Your task to perform on an android device: toggle translation in the chrome app Image 0: 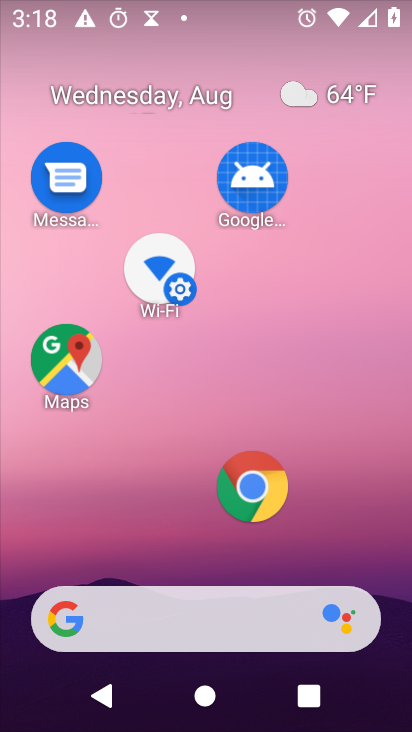
Step 0: press home button
Your task to perform on an android device: toggle translation in the chrome app Image 1: 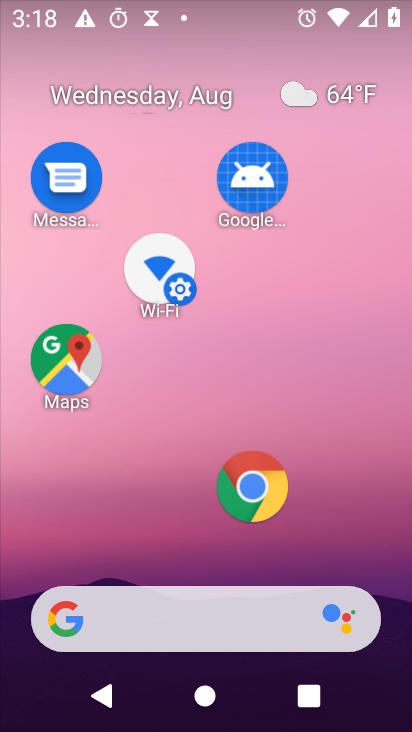
Step 1: click (244, 471)
Your task to perform on an android device: toggle translation in the chrome app Image 2: 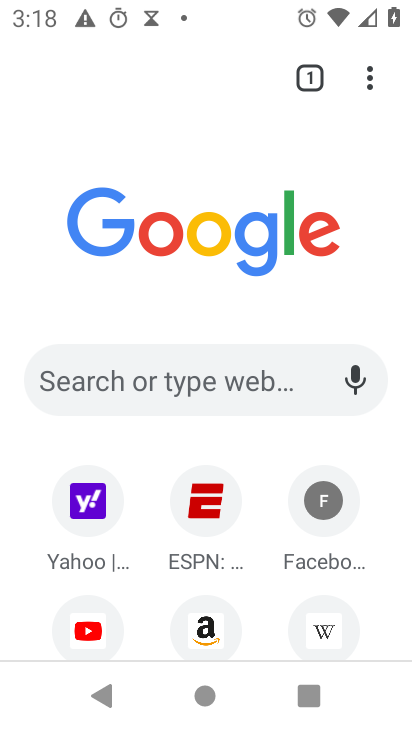
Step 2: click (377, 83)
Your task to perform on an android device: toggle translation in the chrome app Image 3: 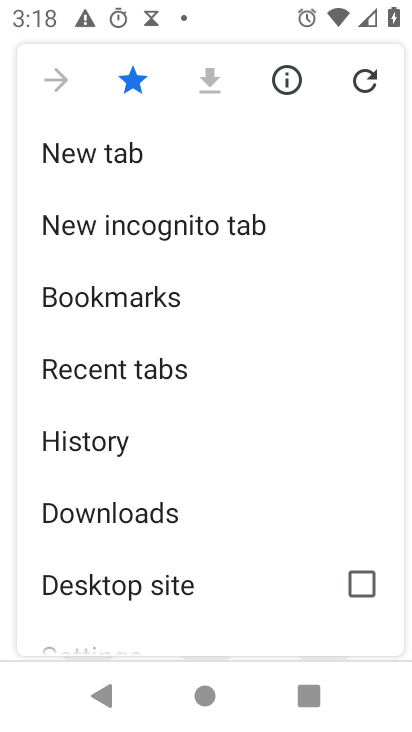
Step 3: drag from (275, 594) to (403, 119)
Your task to perform on an android device: toggle translation in the chrome app Image 4: 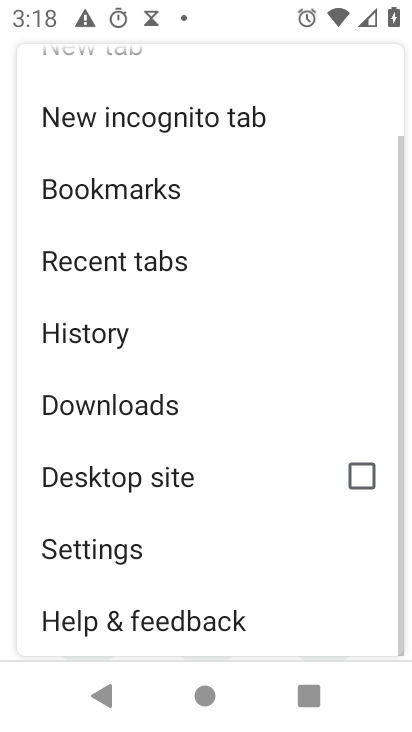
Step 4: click (106, 558)
Your task to perform on an android device: toggle translation in the chrome app Image 5: 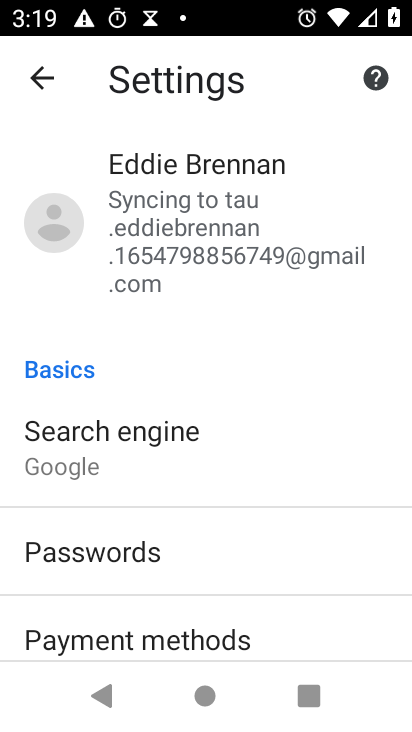
Step 5: drag from (335, 637) to (411, 50)
Your task to perform on an android device: toggle translation in the chrome app Image 6: 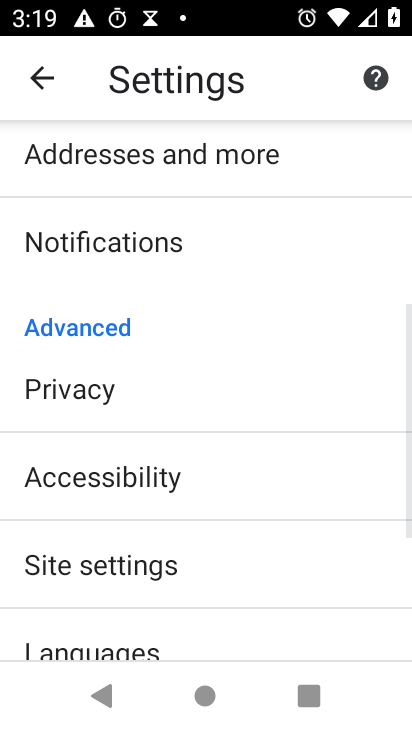
Step 6: drag from (361, 572) to (404, 180)
Your task to perform on an android device: toggle translation in the chrome app Image 7: 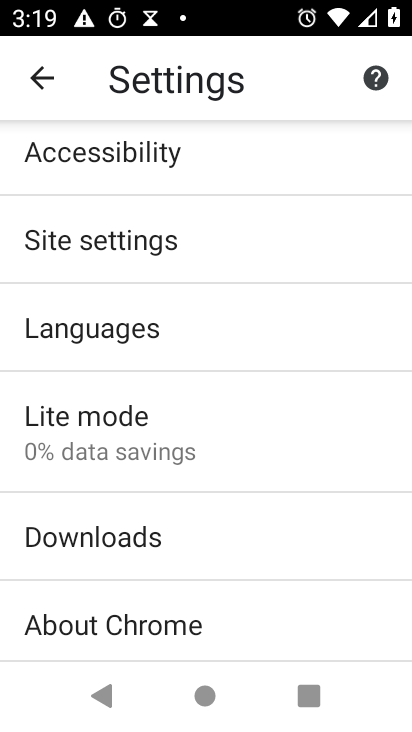
Step 7: click (82, 323)
Your task to perform on an android device: toggle translation in the chrome app Image 8: 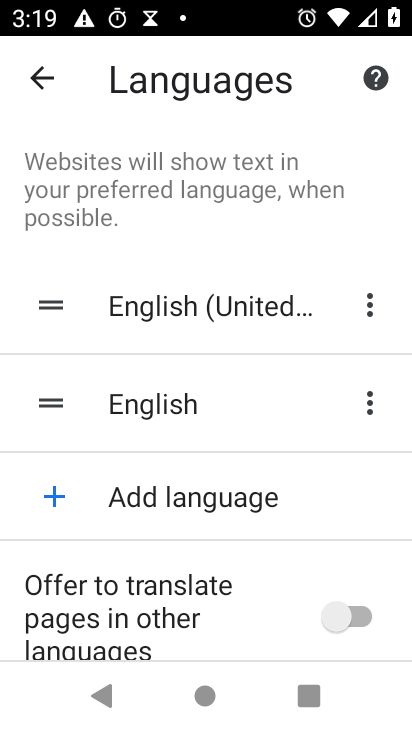
Step 8: click (336, 622)
Your task to perform on an android device: toggle translation in the chrome app Image 9: 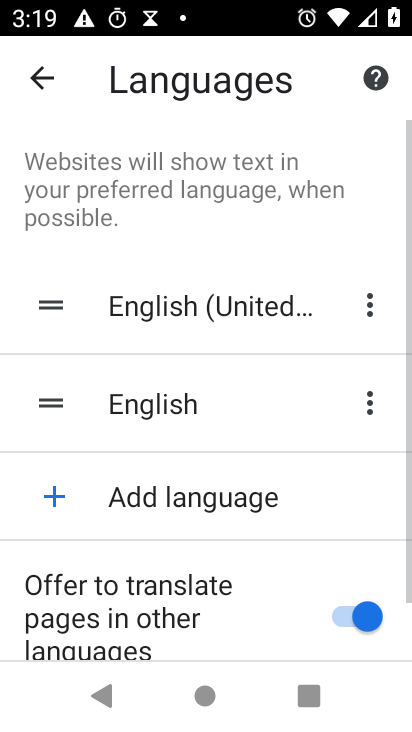
Step 9: task complete